Your task to perform on an android device: find which apps use the phone's location Image 0: 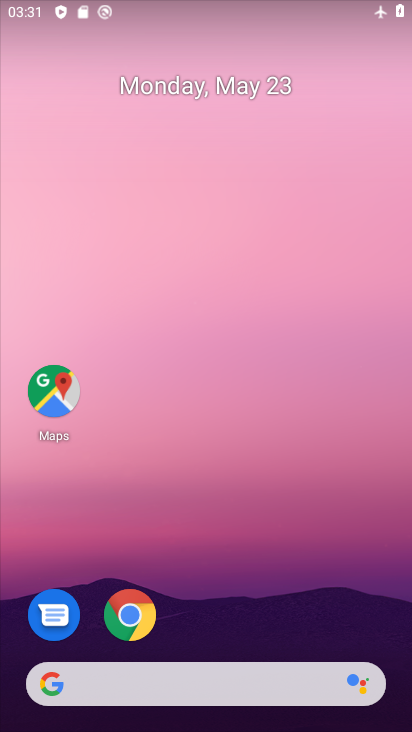
Step 0: drag from (252, 537) to (314, 257)
Your task to perform on an android device: find which apps use the phone's location Image 1: 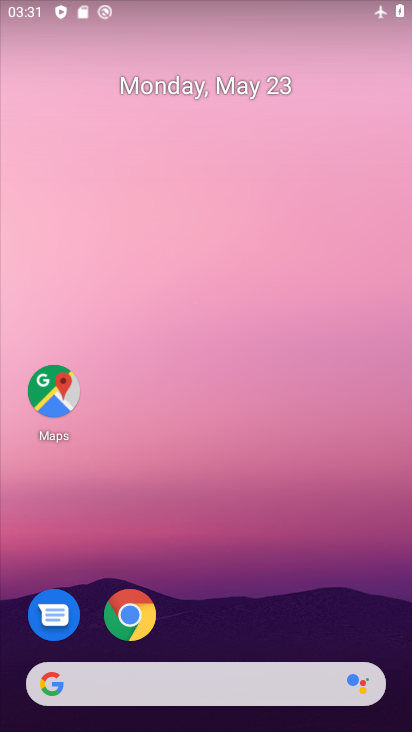
Step 1: drag from (195, 622) to (250, 174)
Your task to perform on an android device: find which apps use the phone's location Image 2: 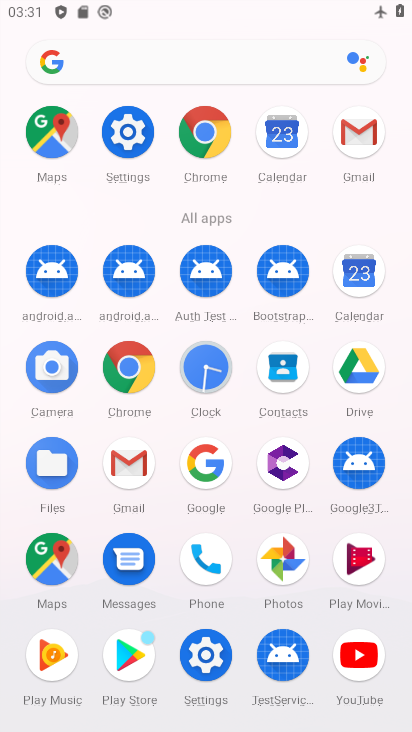
Step 2: click (115, 123)
Your task to perform on an android device: find which apps use the phone's location Image 3: 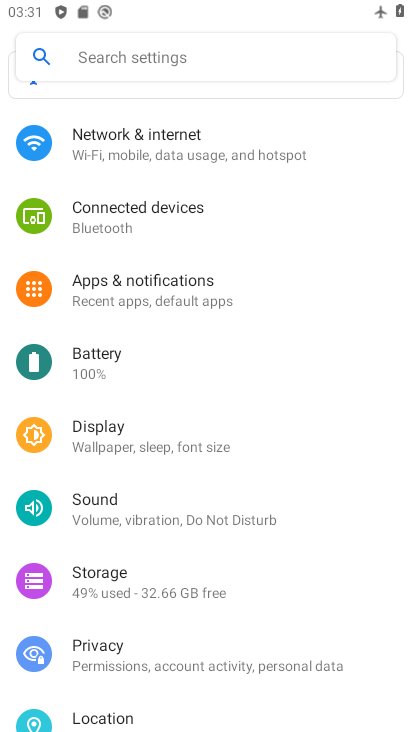
Step 3: drag from (197, 644) to (234, 353)
Your task to perform on an android device: find which apps use the phone's location Image 4: 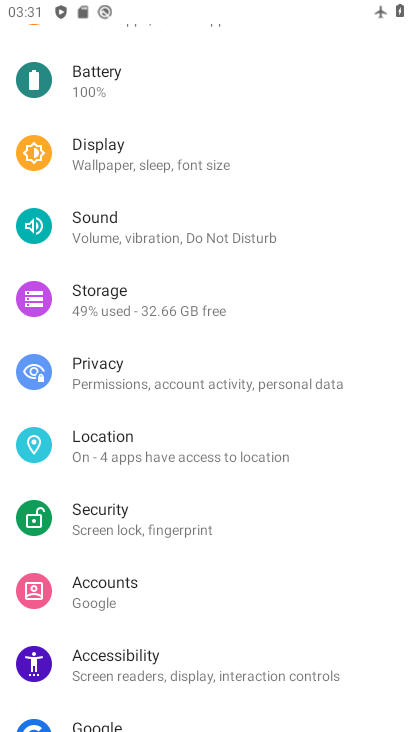
Step 4: click (161, 472)
Your task to perform on an android device: find which apps use the phone's location Image 5: 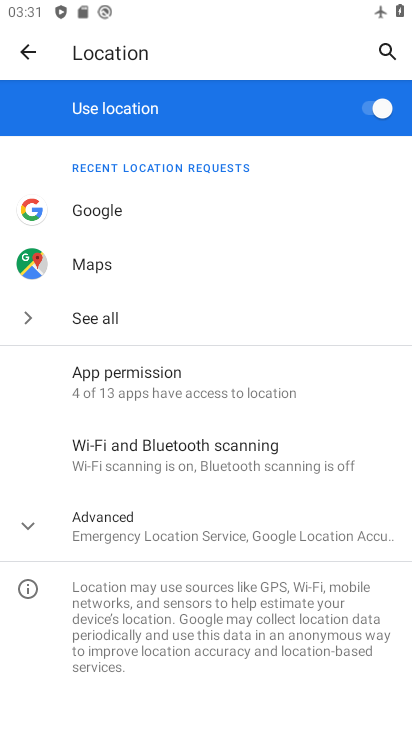
Step 5: click (176, 532)
Your task to perform on an android device: find which apps use the phone's location Image 6: 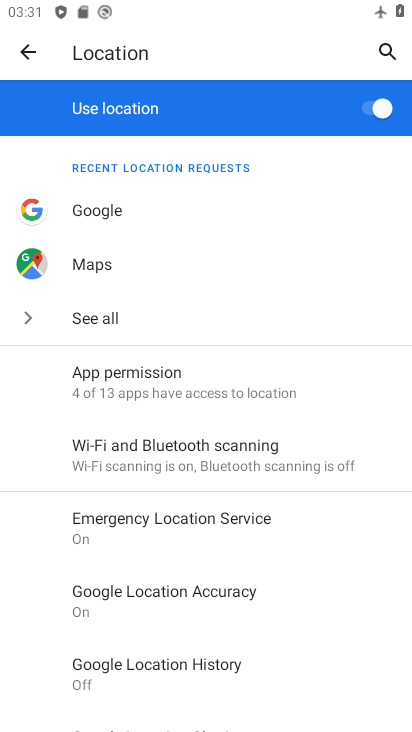
Step 6: task complete